Your task to perform on an android device: What's the weather today? Image 0: 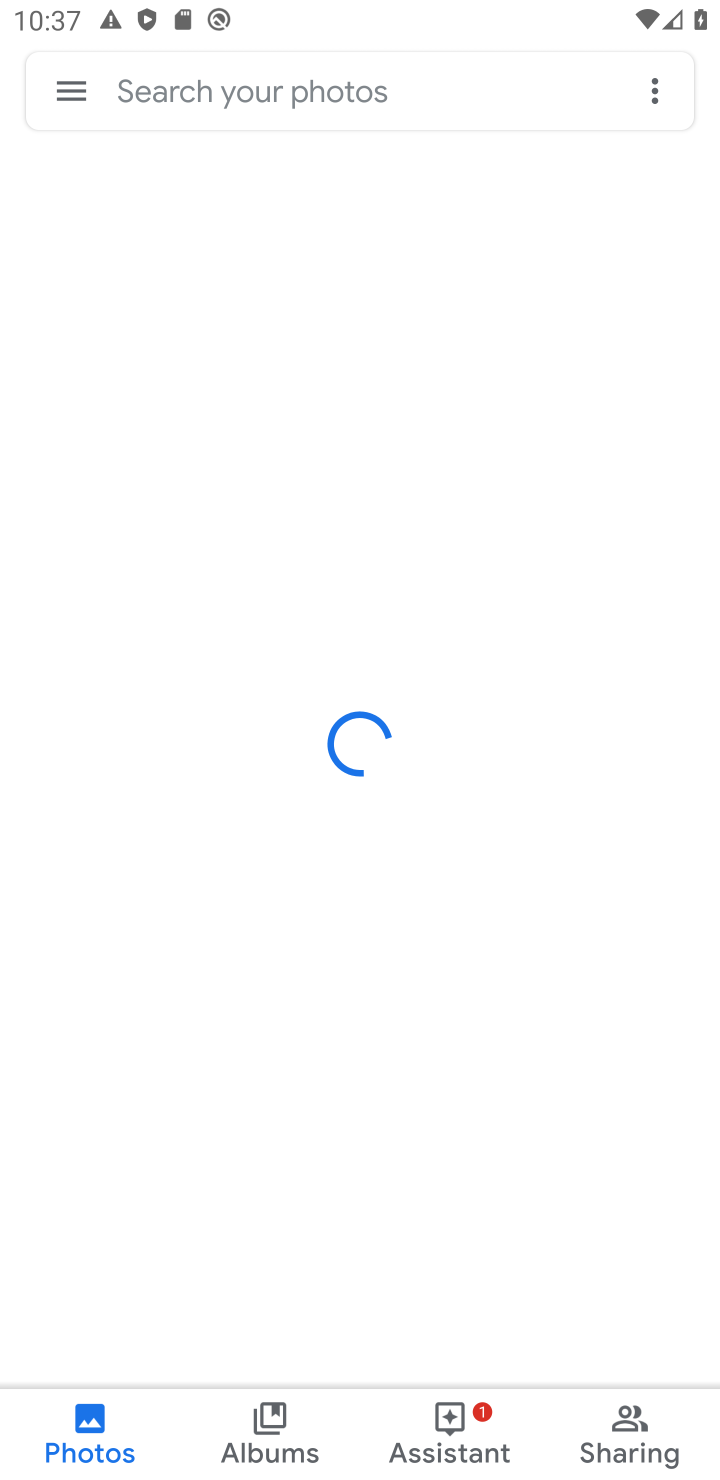
Step 0: press home button
Your task to perform on an android device: What's the weather today? Image 1: 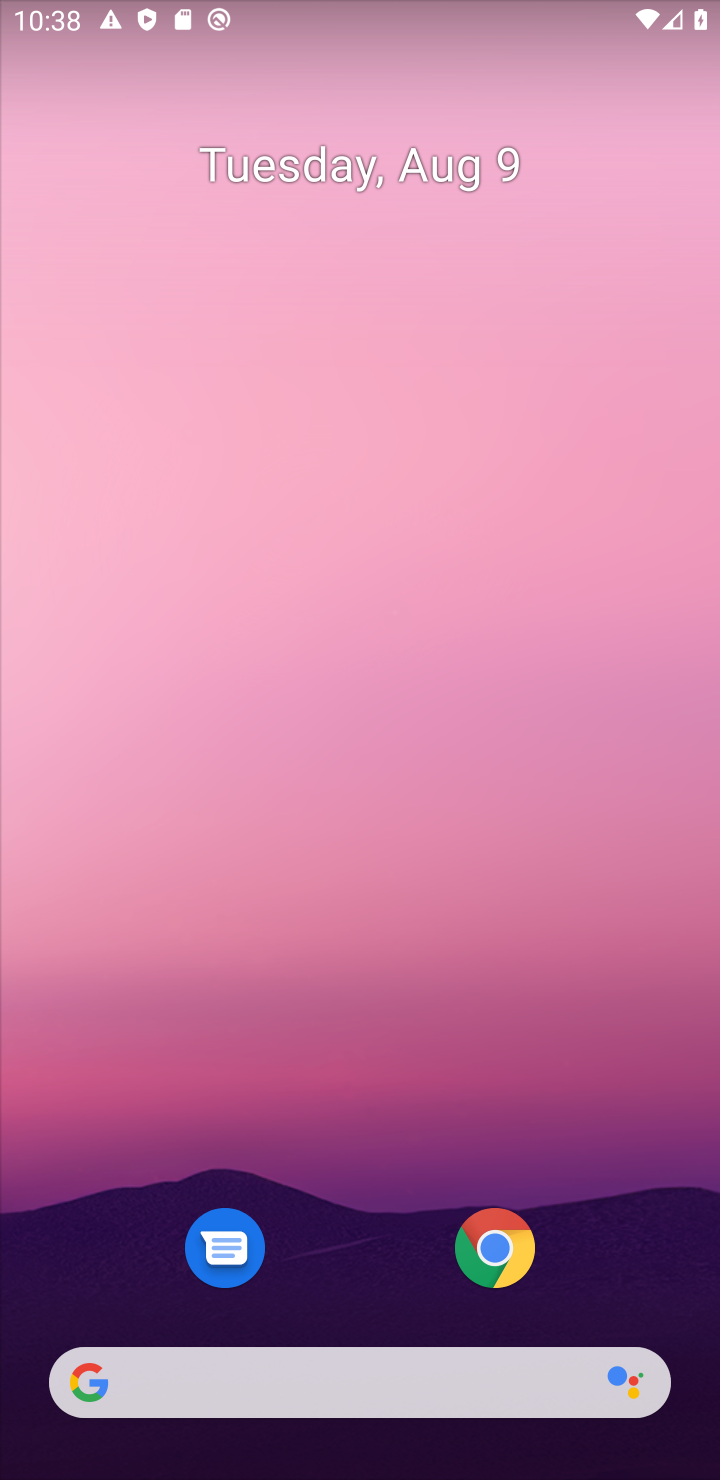
Step 1: click (469, 1386)
Your task to perform on an android device: What's the weather today? Image 2: 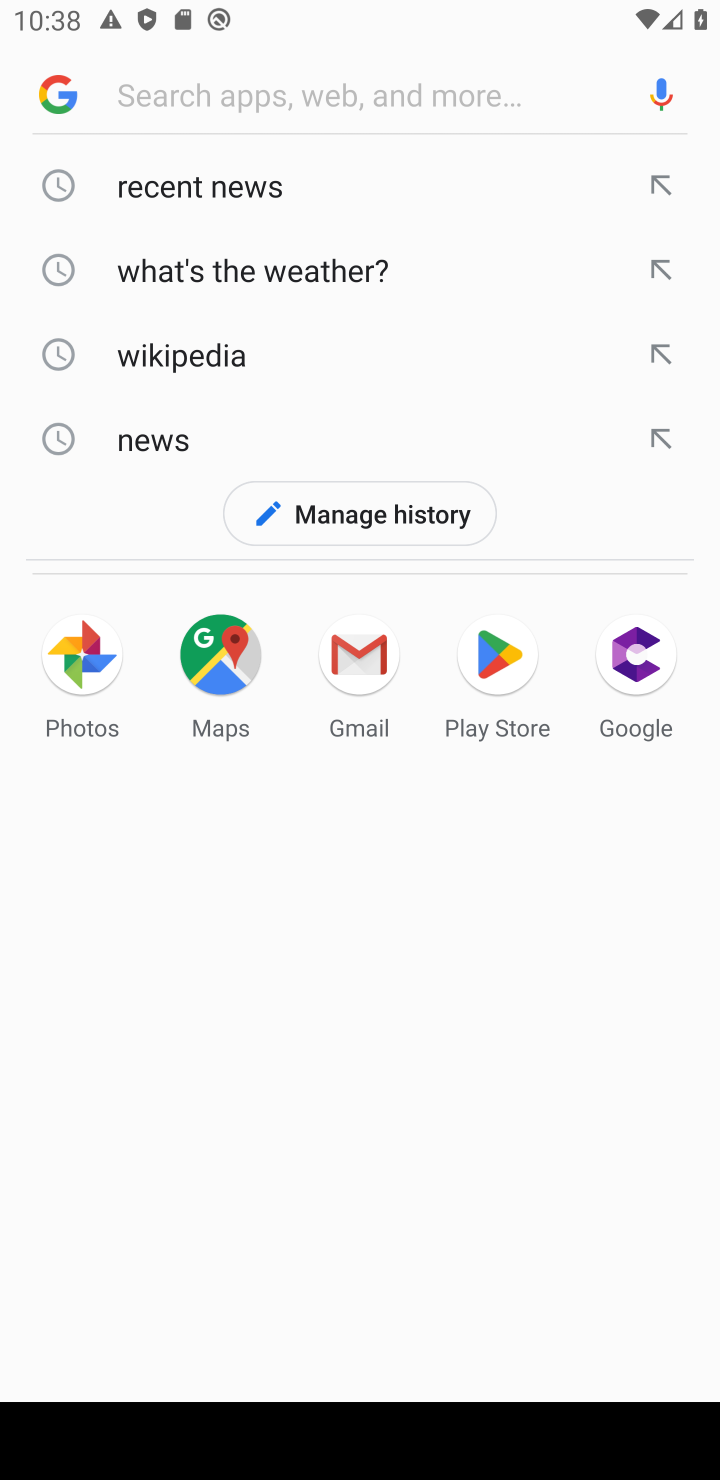
Step 2: type "What's the weather today?"
Your task to perform on an android device: What's the weather today? Image 3: 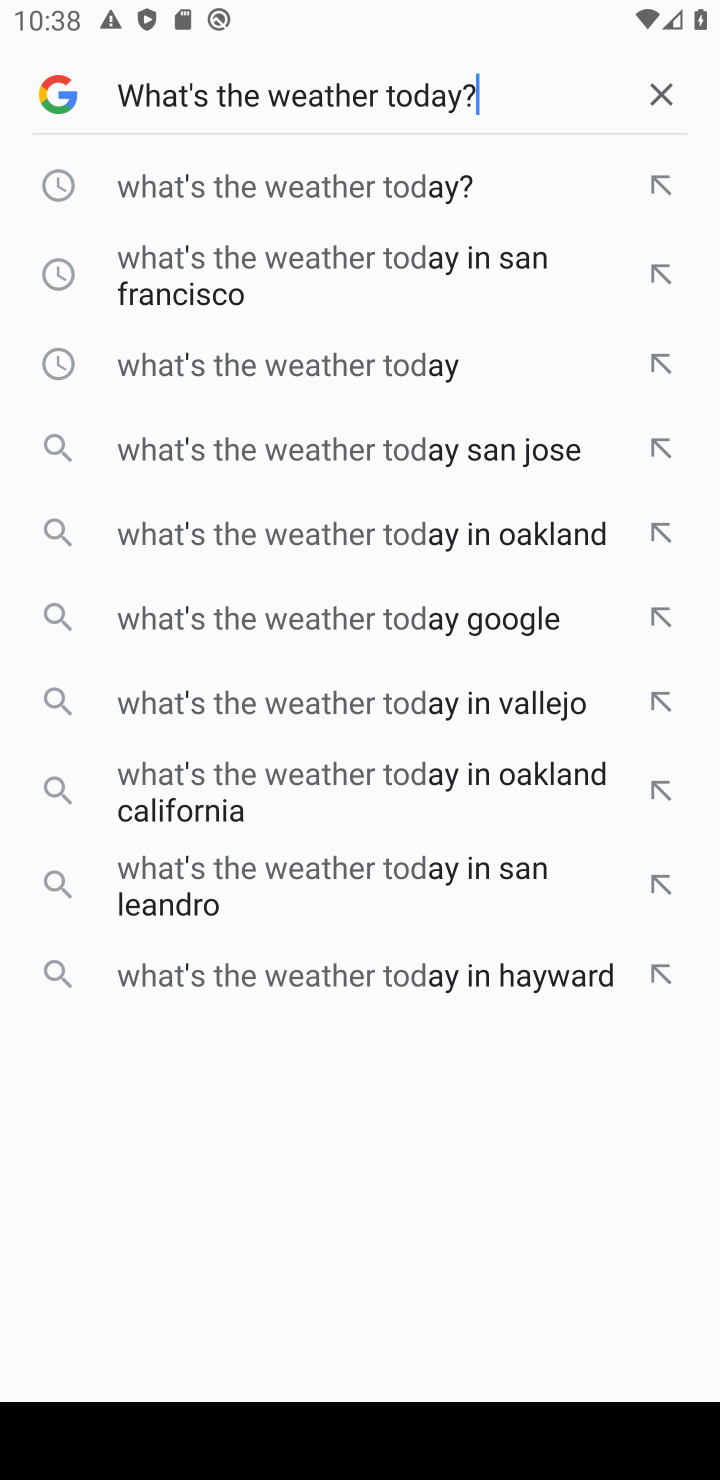
Step 3: press enter
Your task to perform on an android device: What's the weather today? Image 4: 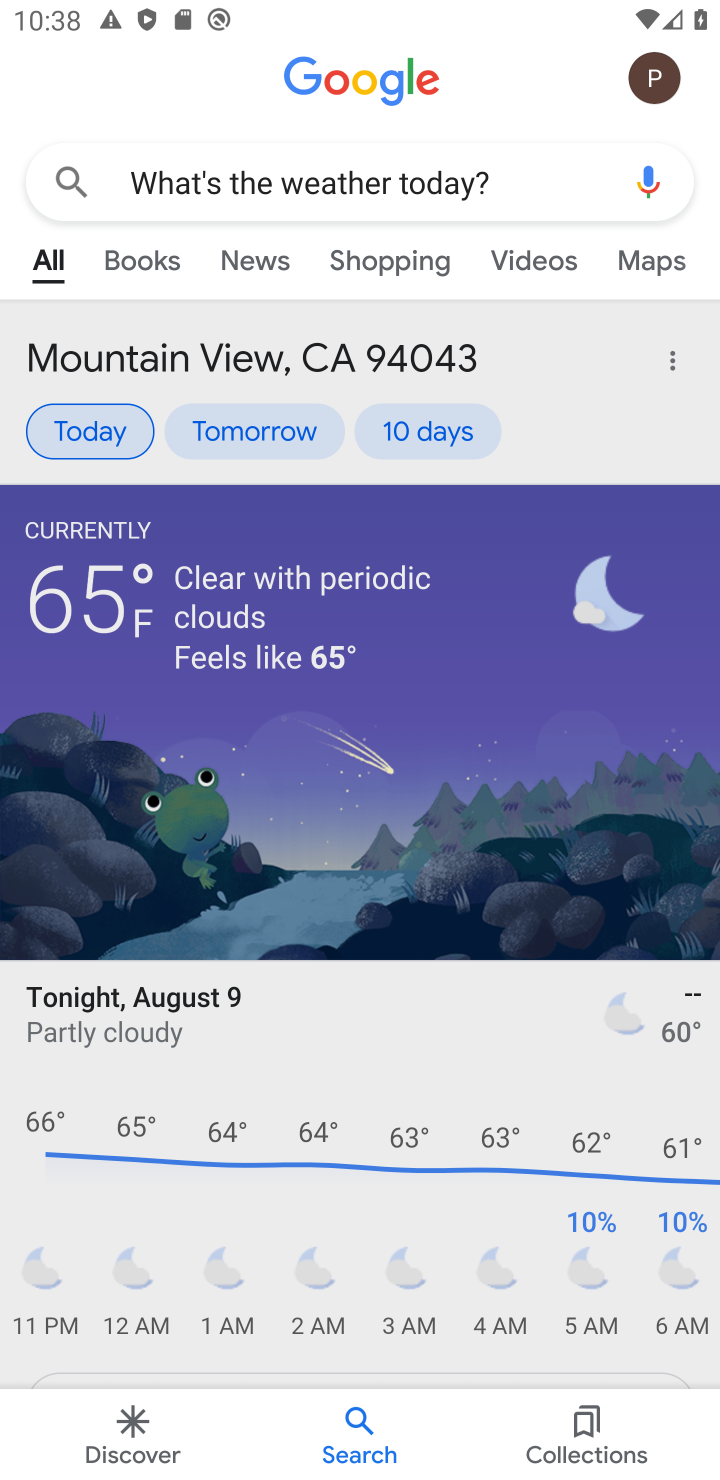
Step 4: task complete